Your task to perform on an android device: clear all cookies in the chrome app Image 0: 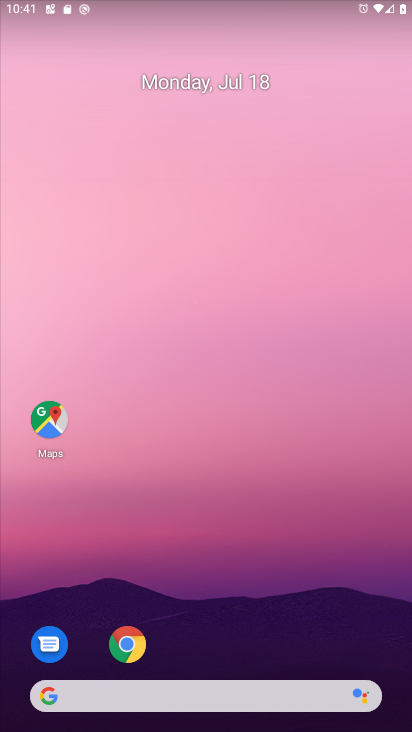
Step 0: click (133, 653)
Your task to perform on an android device: clear all cookies in the chrome app Image 1: 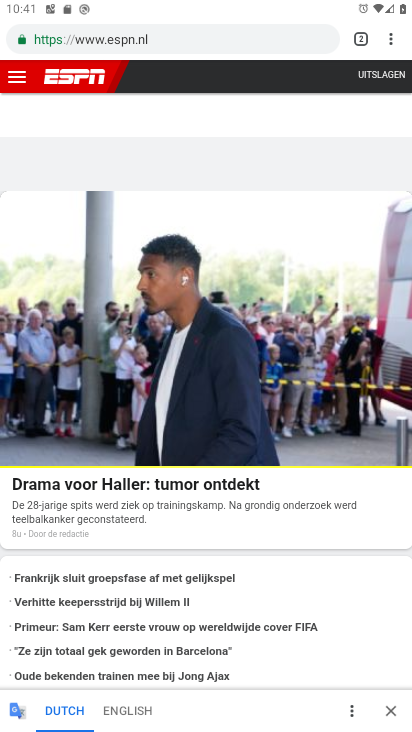
Step 1: click (389, 50)
Your task to perform on an android device: clear all cookies in the chrome app Image 2: 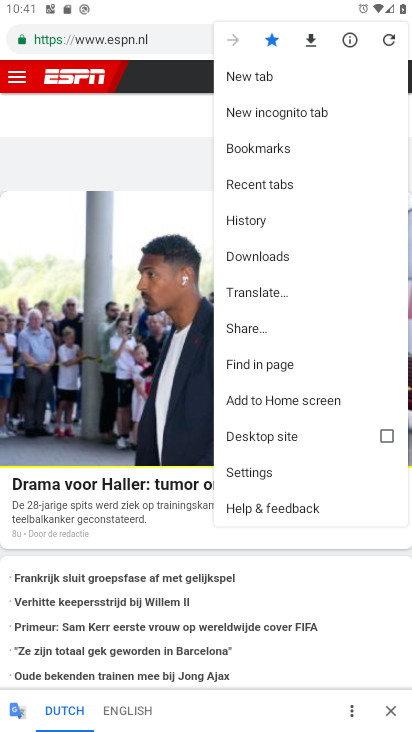
Step 2: click (265, 460)
Your task to perform on an android device: clear all cookies in the chrome app Image 3: 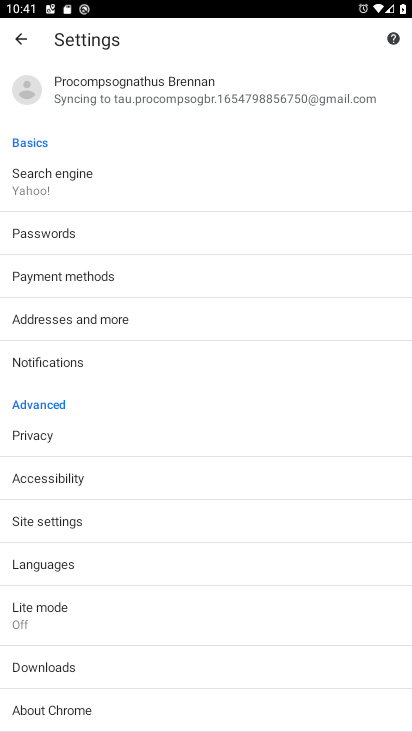
Step 3: task complete